Your task to perform on an android device: Do I have any events tomorrow? Image 0: 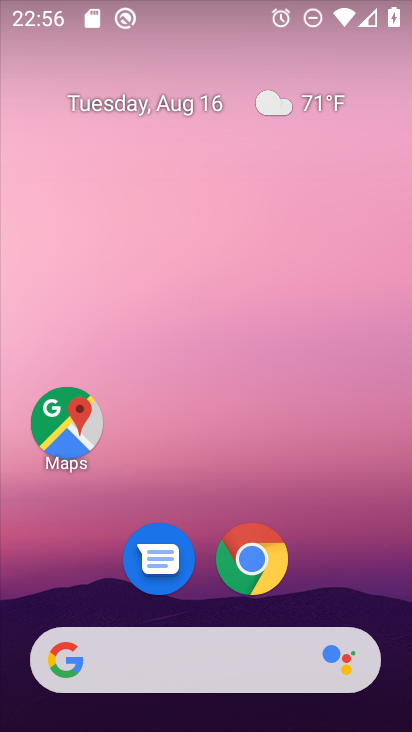
Step 0: drag from (193, 676) to (259, 135)
Your task to perform on an android device: Do I have any events tomorrow? Image 1: 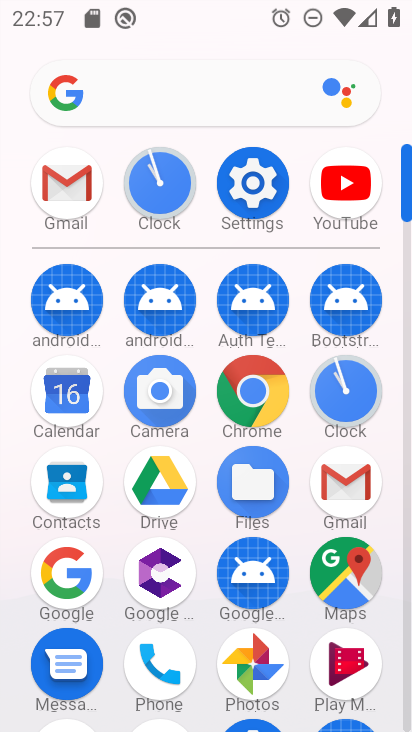
Step 1: click (69, 400)
Your task to perform on an android device: Do I have any events tomorrow? Image 2: 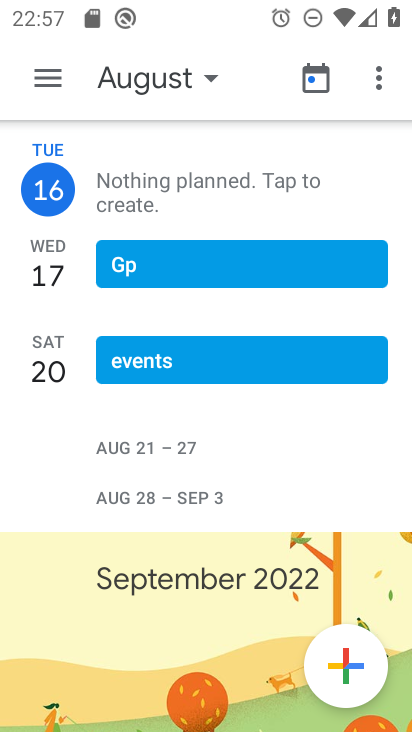
Step 2: click (221, 82)
Your task to perform on an android device: Do I have any events tomorrow? Image 3: 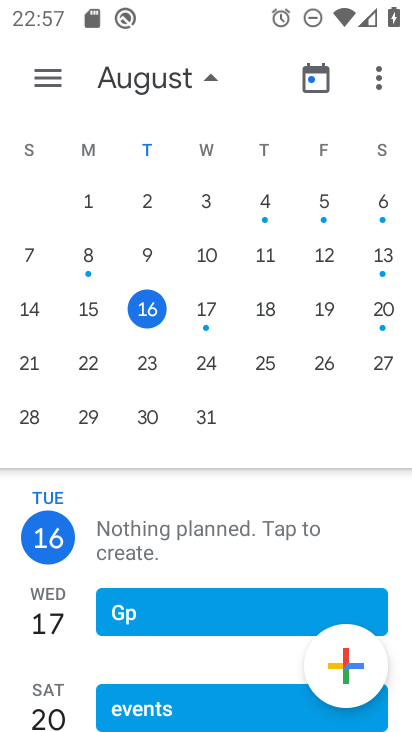
Step 3: click (201, 311)
Your task to perform on an android device: Do I have any events tomorrow? Image 4: 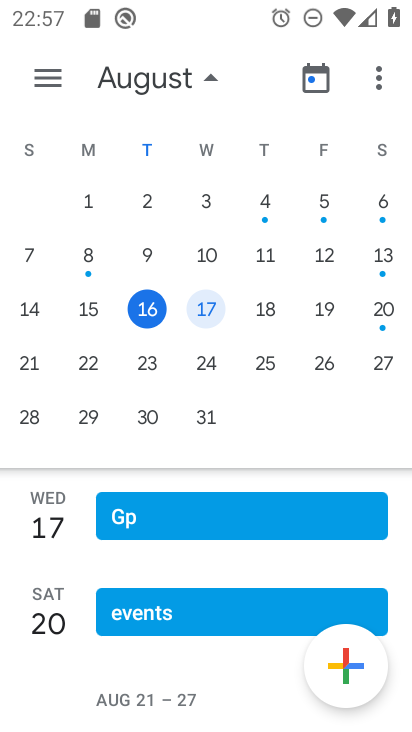
Step 4: click (40, 80)
Your task to perform on an android device: Do I have any events tomorrow? Image 5: 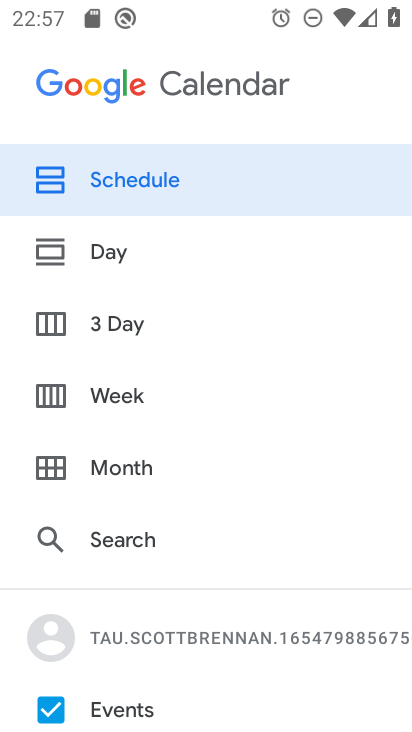
Step 5: click (112, 172)
Your task to perform on an android device: Do I have any events tomorrow? Image 6: 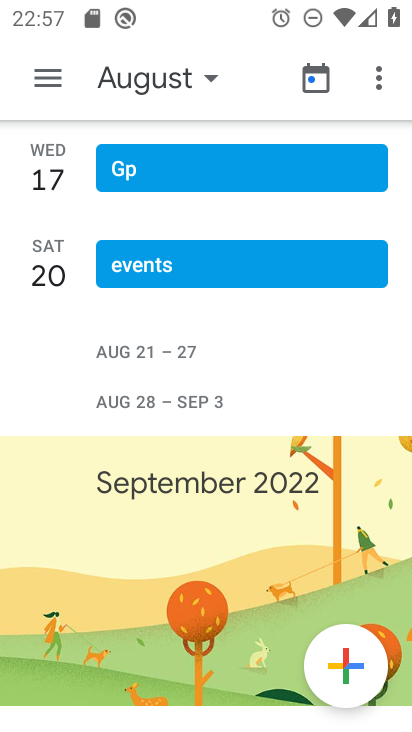
Step 6: task complete